Your task to perform on an android device: turn on sleep mode Image 0: 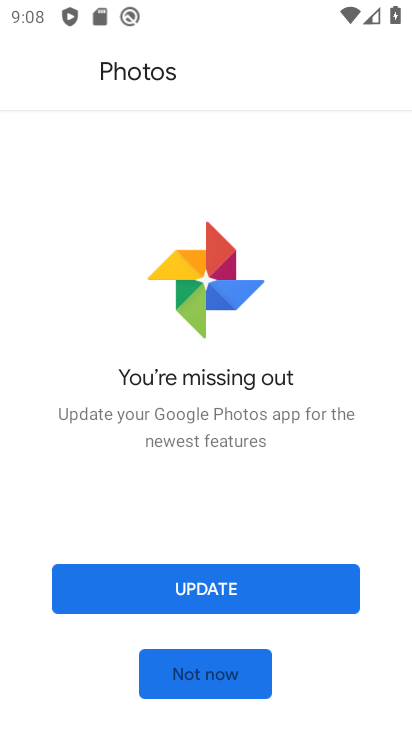
Step 0: press back button
Your task to perform on an android device: turn on sleep mode Image 1: 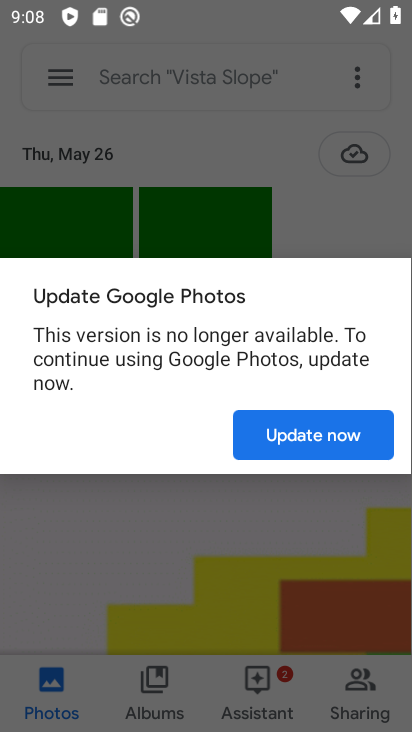
Step 1: press home button
Your task to perform on an android device: turn on sleep mode Image 2: 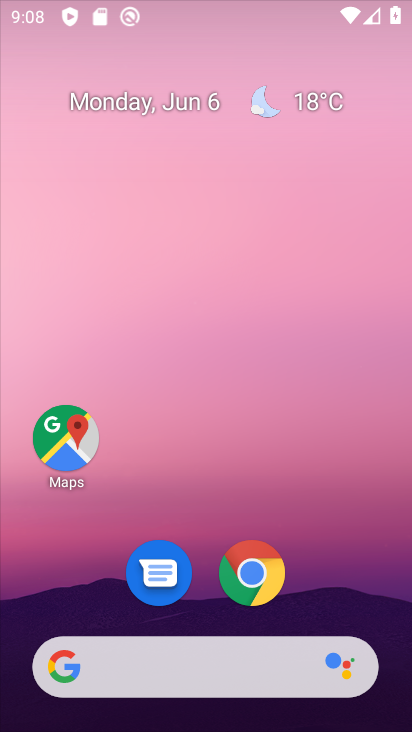
Step 2: drag from (232, 527) to (286, 9)
Your task to perform on an android device: turn on sleep mode Image 3: 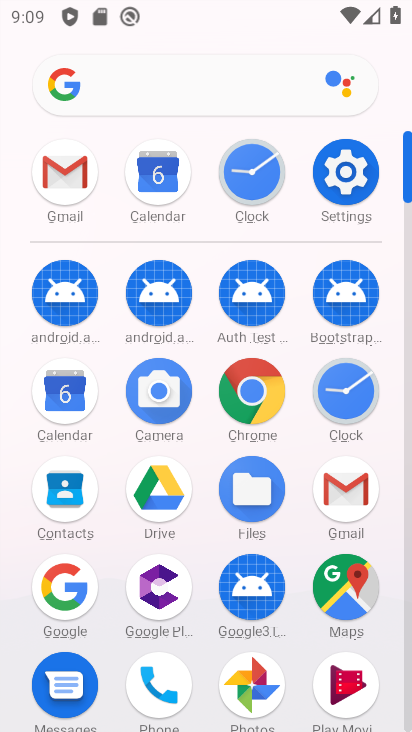
Step 3: click (350, 164)
Your task to perform on an android device: turn on sleep mode Image 4: 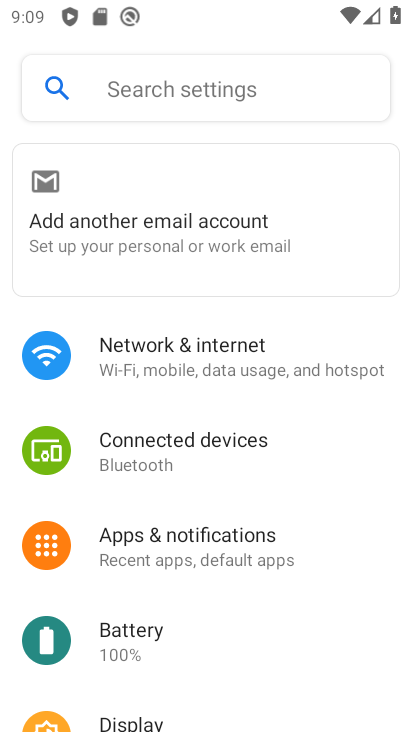
Step 4: click (157, 97)
Your task to perform on an android device: turn on sleep mode Image 5: 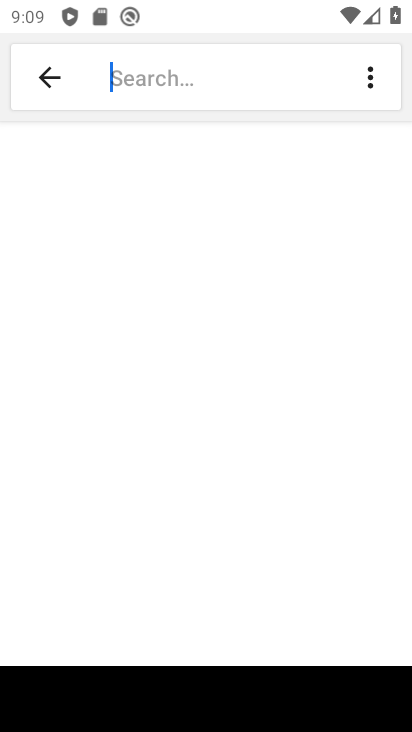
Step 5: type "sleep mode"
Your task to perform on an android device: turn on sleep mode Image 6: 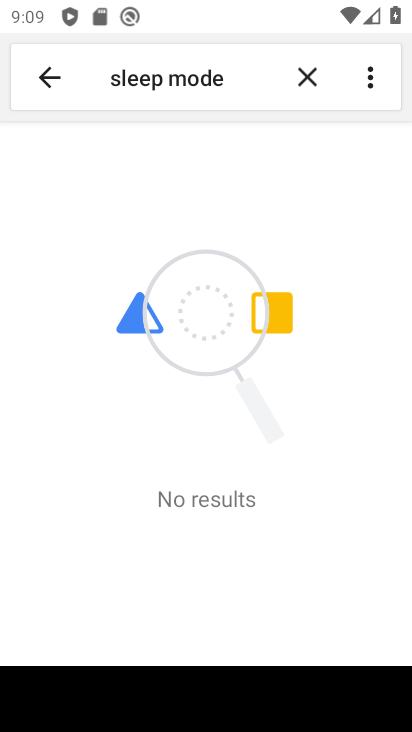
Step 6: task complete